Your task to perform on an android device: set default search engine in the chrome app Image 0: 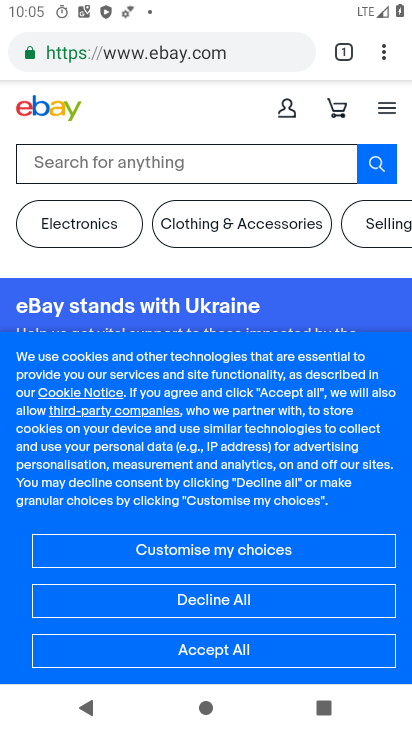
Step 0: press home button
Your task to perform on an android device: set default search engine in the chrome app Image 1: 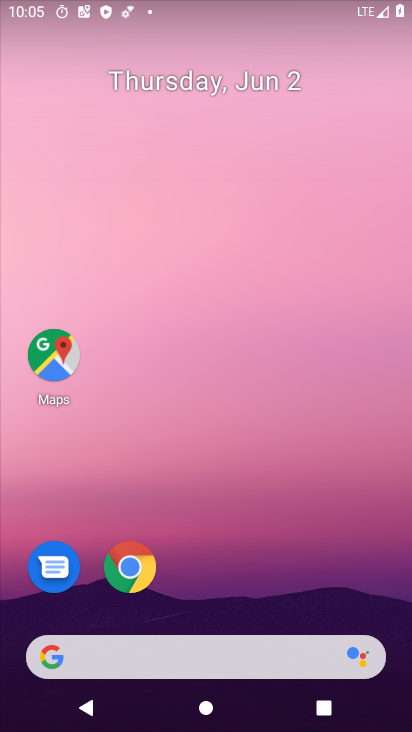
Step 1: drag from (339, 554) to (322, 171)
Your task to perform on an android device: set default search engine in the chrome app Image 2: 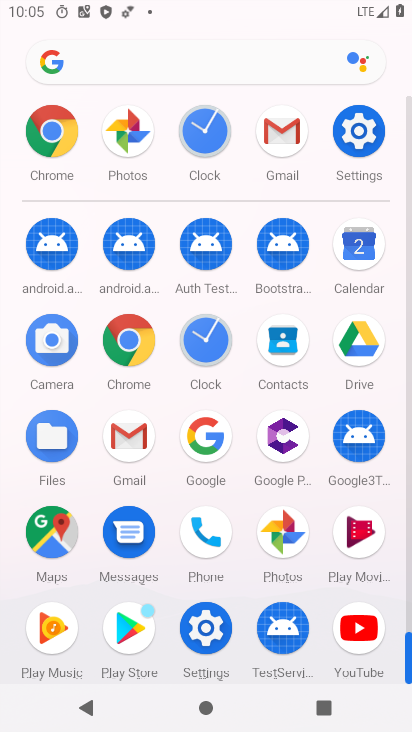
Step 2: click (114, 347)
Your task to perform on an android device: set default search engine in the chrome app Image 3: 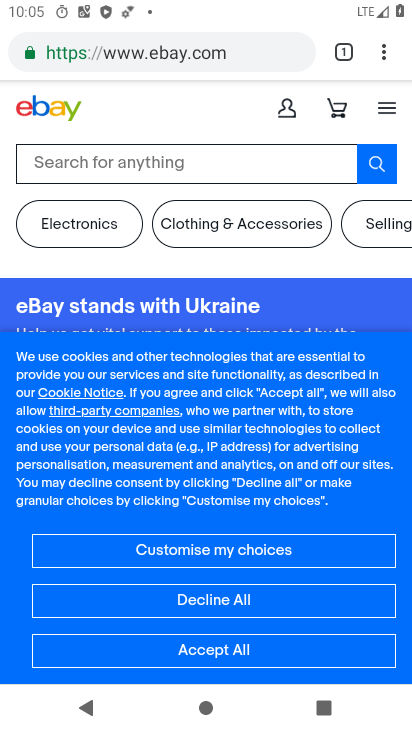
Step 3: drag from (390, 65) to (222, 602)
Your task to perform on an android device: set default search engine in the chrome app Image 4: 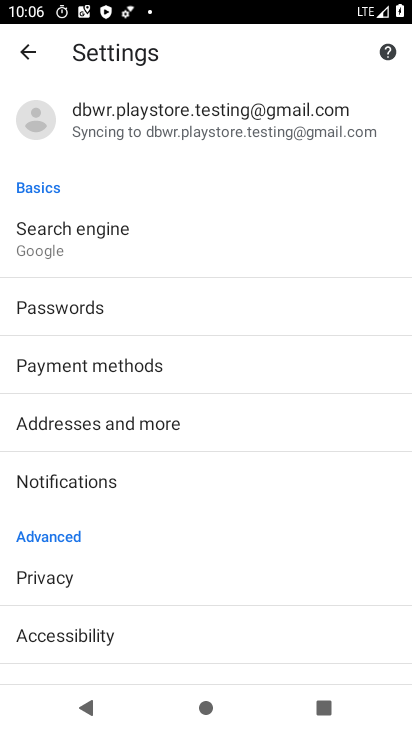
Step 4: drag from (220, 559) to (275, 433)
Your task to perform on an android device: set default search engine in the chrome app Image 5: 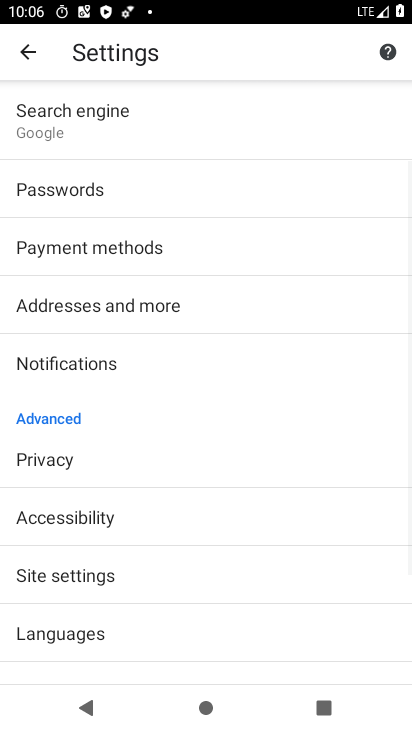
Step 5: click (138, 123)
Your task to perform on an android device: set default search engine in the chrome app Image 6: 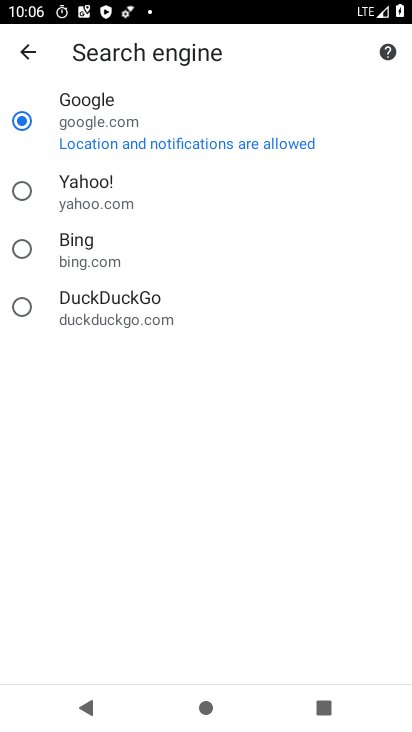
Step 6: click (120, 191)
Your task to perform on an android device: set default search engine in the chrome app Image 7: 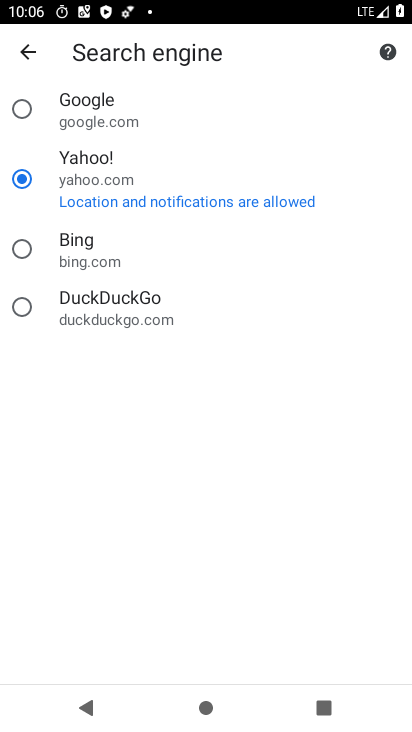
Step 7: task complete